Your task to perform on an android device: Toggle the flashlight Image 0: 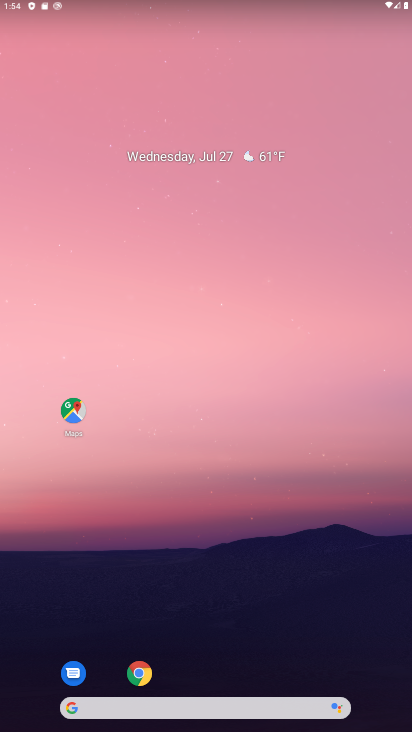
Step 0: drag from (235, 381) to (213, 54)
Your task to perform on an android device: Toggle the flashlight Image 1: 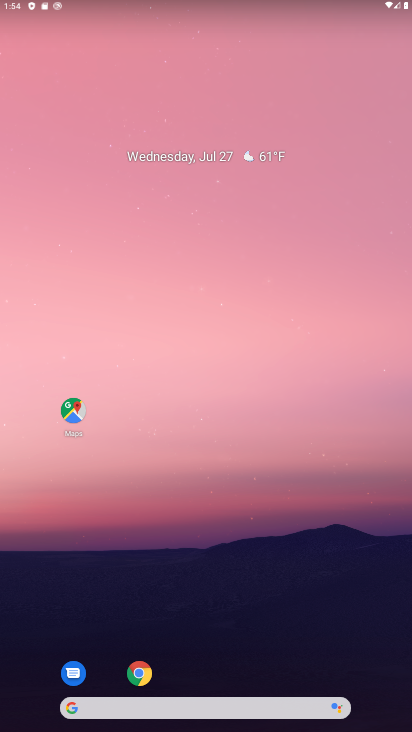
Step 1: drag from (195, 667) to (188, 43)
Your task to perform on an android device: Toggle the flashlight Image 2: 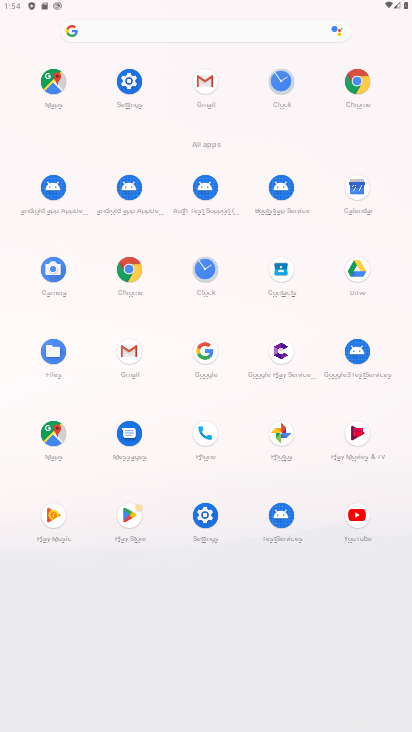
Step 2: click (128, 62)
Your task to perform on an android device: Toggle the flashlight Image 3: 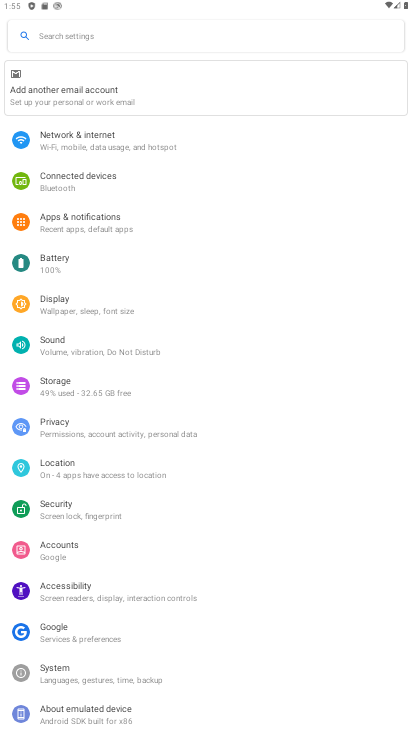
Step 3: task complete